Your task to perform on an android device: see sites visited before in the chrome app Image 0: 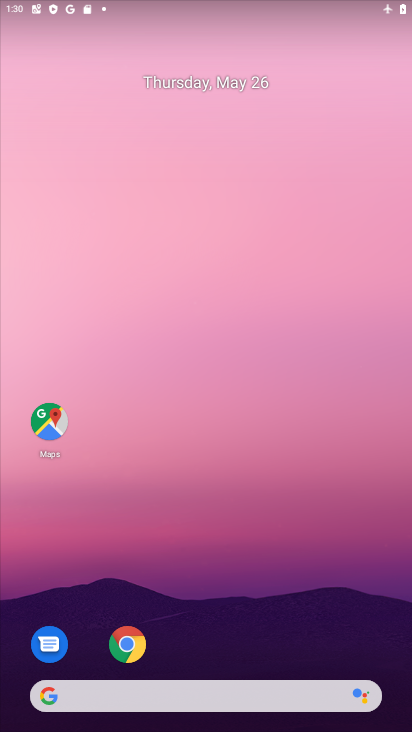
Step 0: click (126, 644)
Your task to perform on an android device: see sites visited before in the chrome app Image 1: 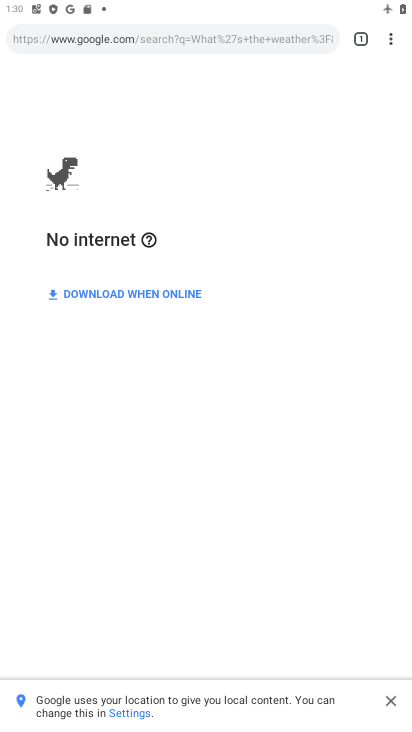
Step 1: click (387, 31)
Your task to perform on an android device: see sites visited before in the chrome app Image 2: 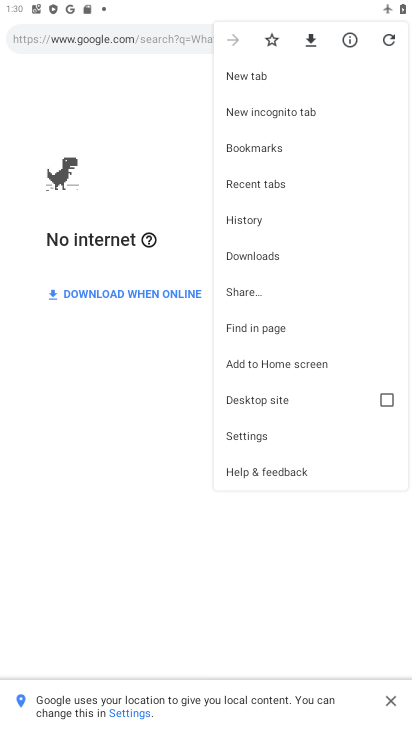
Step 2: click (248, 211)
Your task to perform on an android device: see sites visited before in the chrome app Image 3: 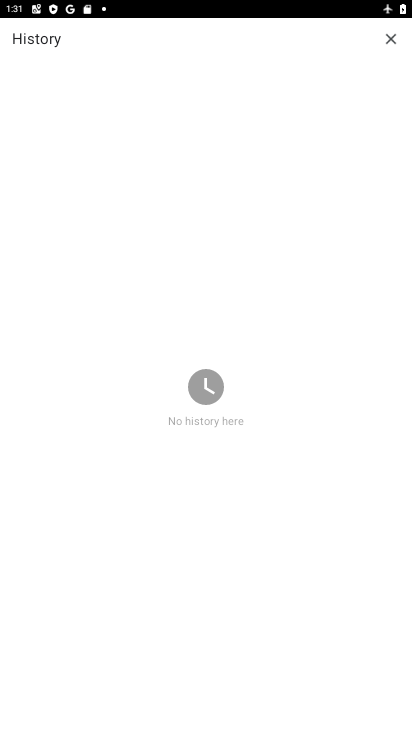
Step 3: task complete